Your task to perform on an android device: Open location settings Image 0: 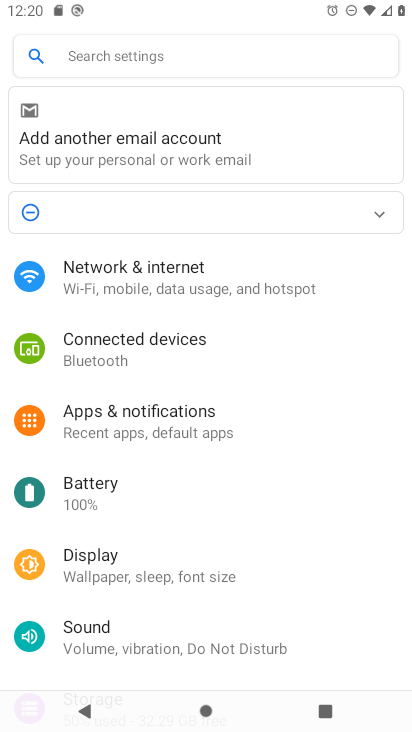
Step 0: press home button
Your task to perform on an android device: Open location settings Image 1: 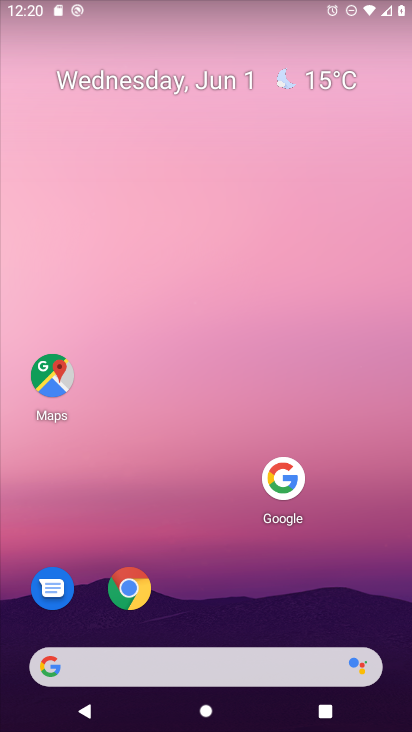
Step 1: drag from (165, 667) to (314, 125)
Your task to perform on an android device: Open location settings Image 2: 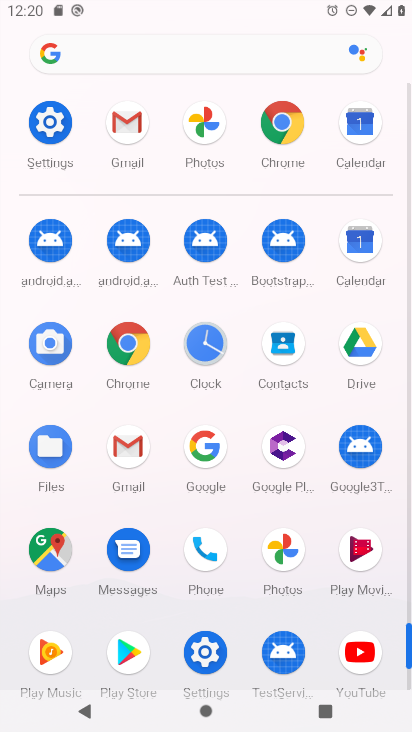
Step 2: click (45, 127)
Your task to perform on an android device: Open location settings Image 3: 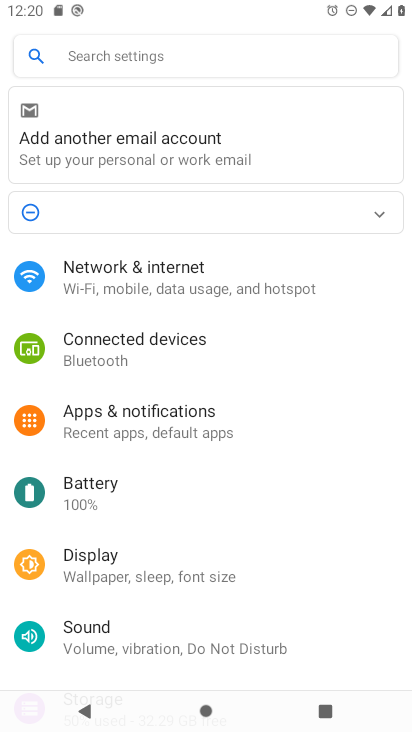
Step 3: drag from (219, 588) to (321, 198)
Your task to perform on an android device: Open location settings Image 4: 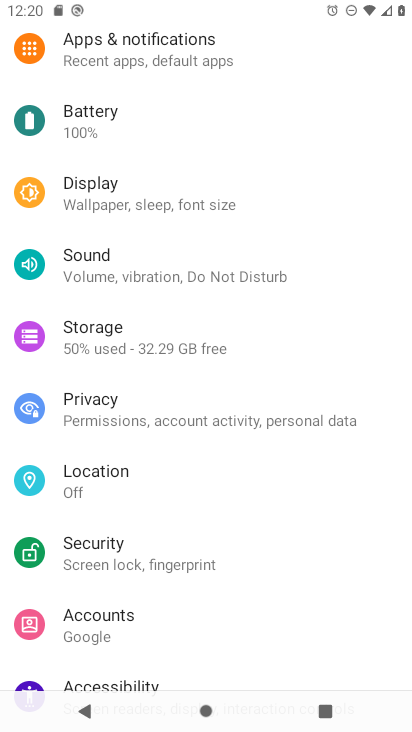
Step 4: click (114, 469)
Your task to perform on an android device: Open location settings Image 5: 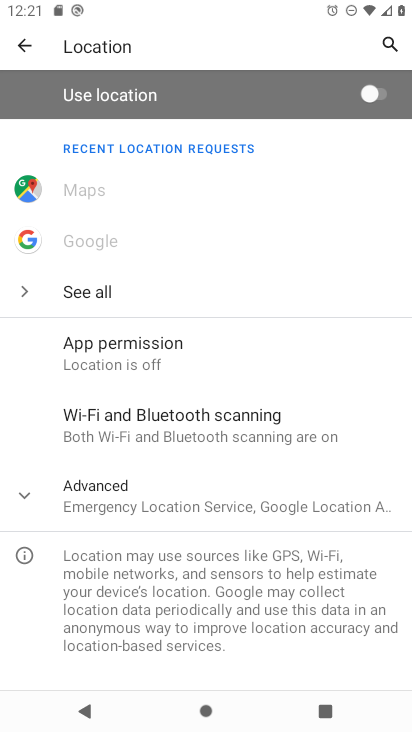
Step 5: task complete